Your task to perform on an android device: turn vacation reply on in the gmail app Image 0: 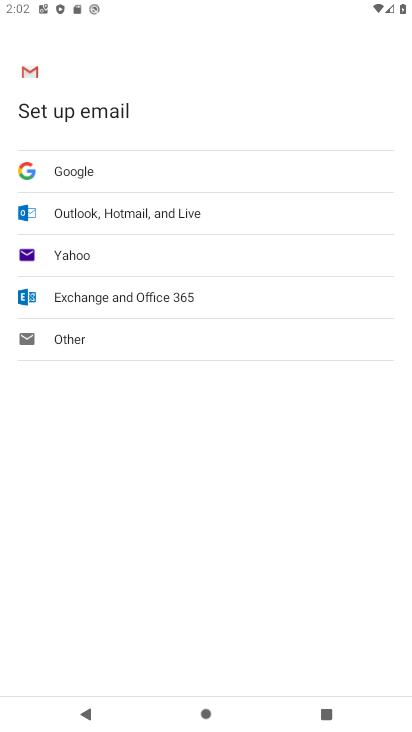
Step 0: press back button
Your task to perform on an android device: turn vacation reply on in the gmail app Image 1: 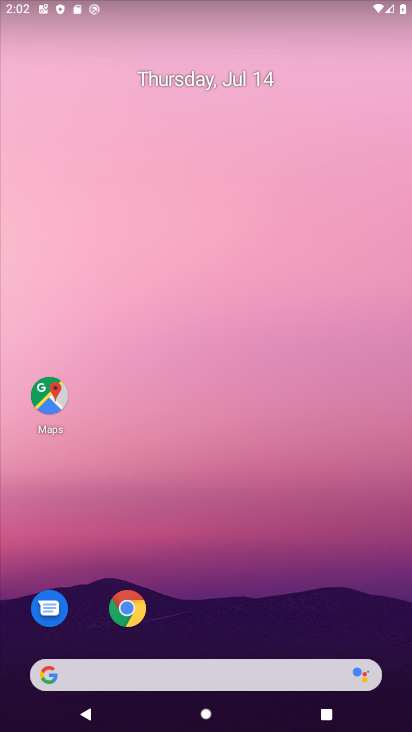
Step 1: drag from (222, 613) to (222, 13)
Your task to perform on an android device: turn vacation reply on in the gmail app Image 2: 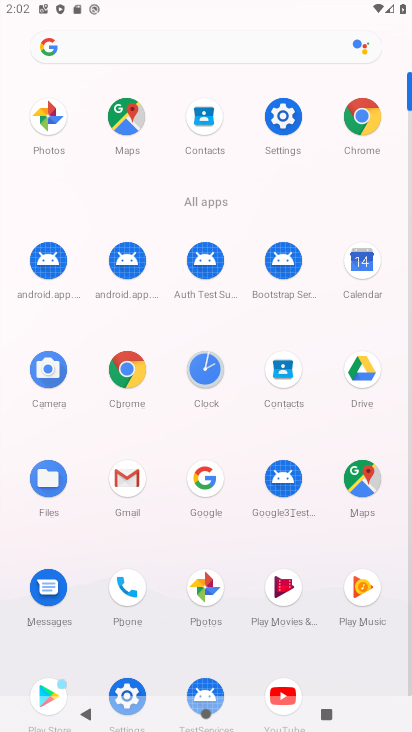
Step 2: click (116, 484)
Your task to perform on an android device: turn vacation reply on in the gmail app Image 3: 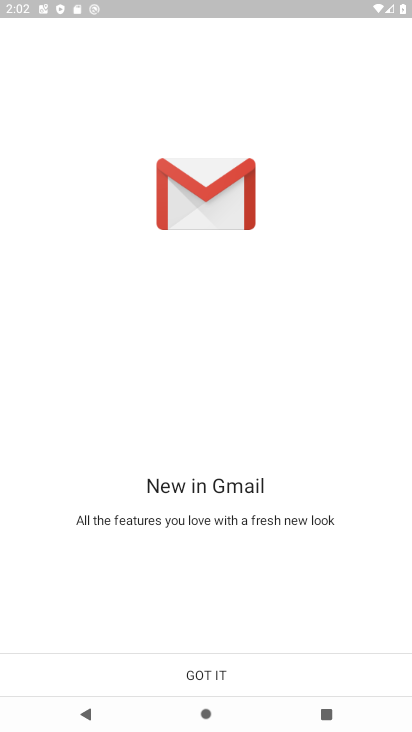
Step 3: click (203, 683)
Your task to perform on an android device: turn vacation reply on in the gmail app Image 4: 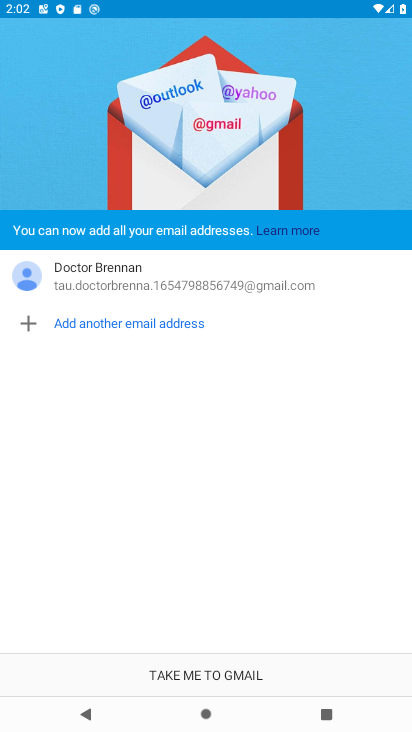
Step 4: click (202, 671)
Your task to perform on an android device: turn vacation reply on in the gmail app Image 5: 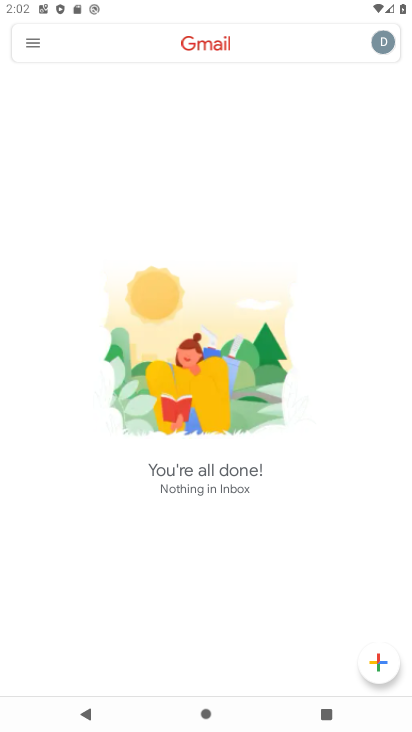
Step 5: click (28, 42)
Your task to perform on an android device: turn vacation reply on in the gmail app Image 6: 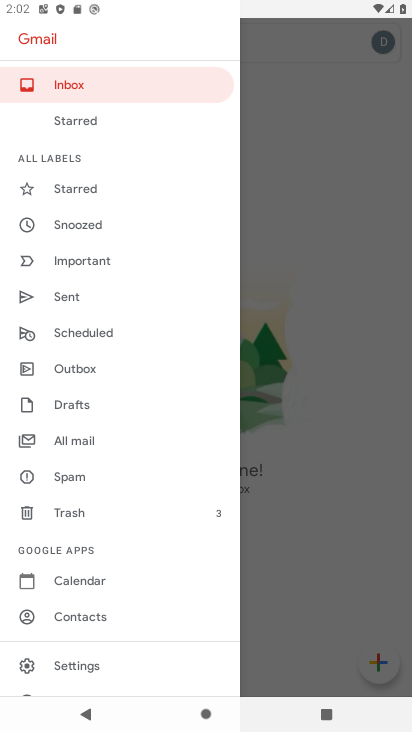
Step 6: click (92, 660)
Your task to perform on an android device: turn vacation reply on in the gmail app Image 7: 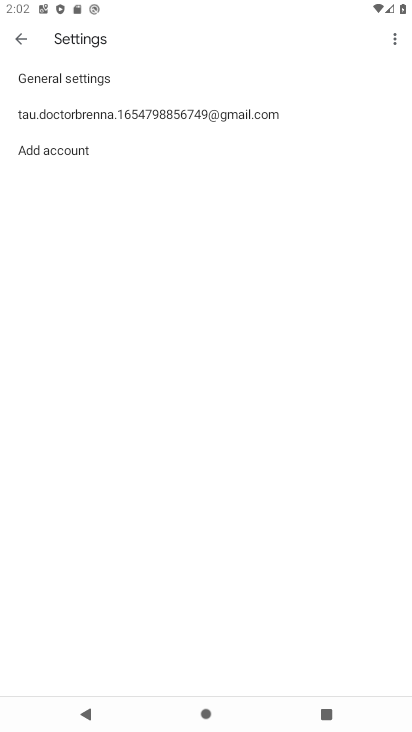
Step 7: click (161, 118)
Your task to perform on an android device: turn vacation reply on in the gmail app Image 8: 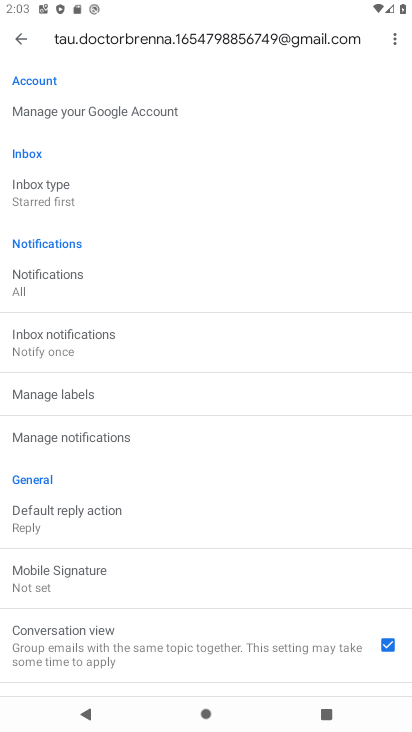
Step 8: drag from (199, 596) to (242, 122)
Your task to perform on an android device: turn vacation reply on in the gmail app Image 9: 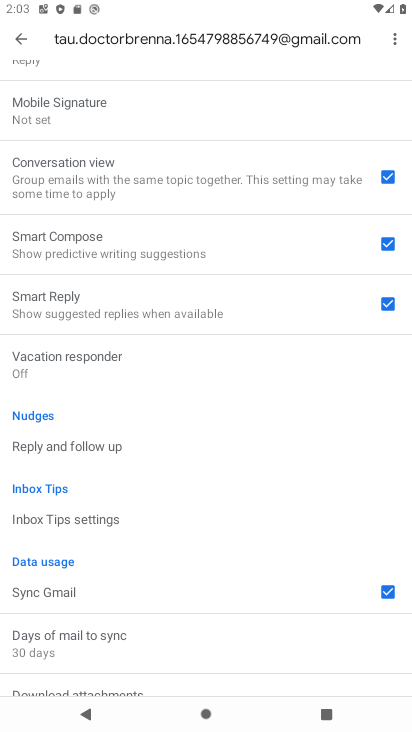
Step 9: click (115, 362)
Your task to perform on an android device: turn vacation reply on in the gmail app Image 10: 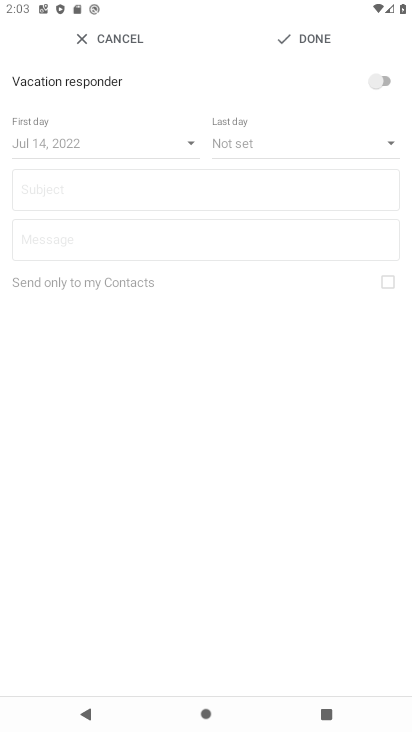
Step 10: click (379, 79)
Your task to perform on an android device: turn vacation reply on in the gmail app Image 11: 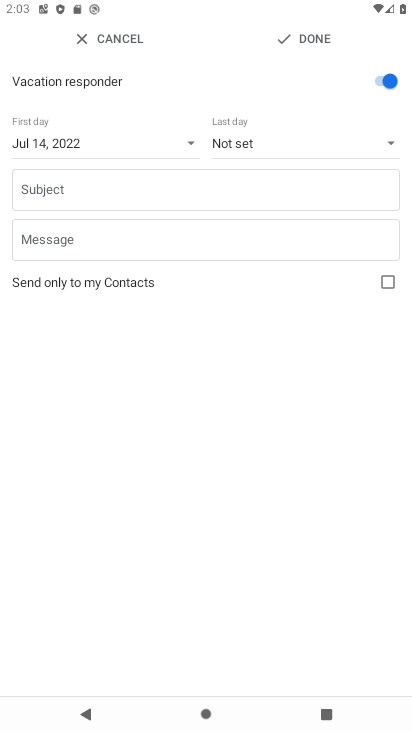
Step 11: task complete